Your task to perform on an android device: Open Google Maps Image 0: 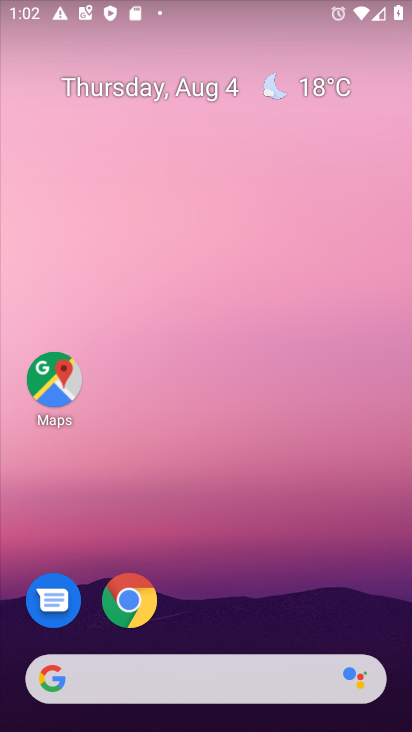
Step 0: press home button
Your task to perform on an android device: Open Google Maps Image 1: 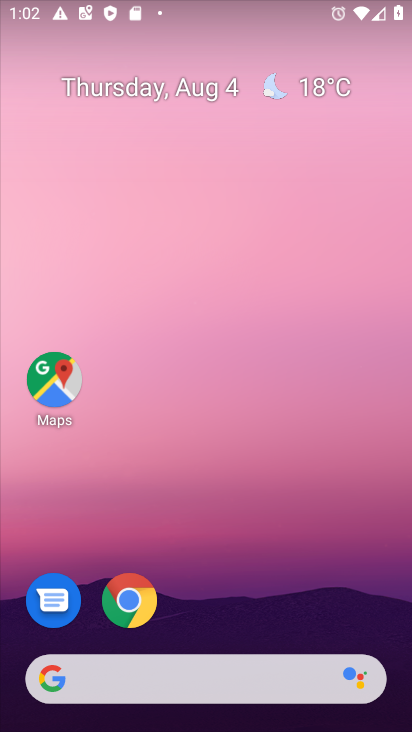
Step 1: click (53, 382)
Your task to perform on an android device: Open Google Maps Image 2: 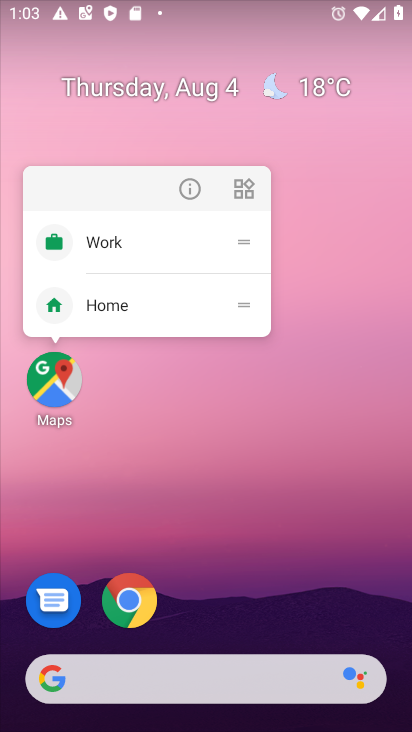
Step 2: click (59, 376)
Your task to perform on an android device: Open Google Maps Image 3: 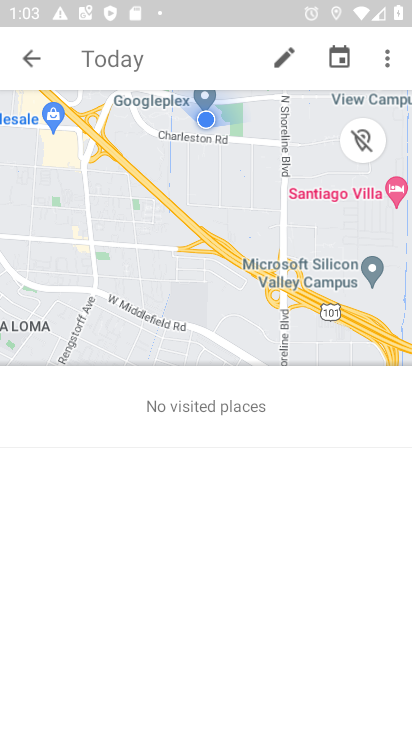
Step 3: click (26, 64)
Your task to perform on an android device: Open Google Maps Image 4: 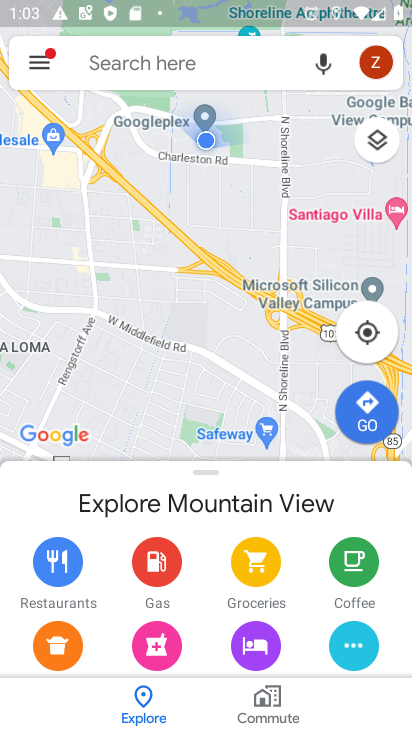
Step 4: task complete